Your task to perform on an android device: turn on airplane mode Image 0: 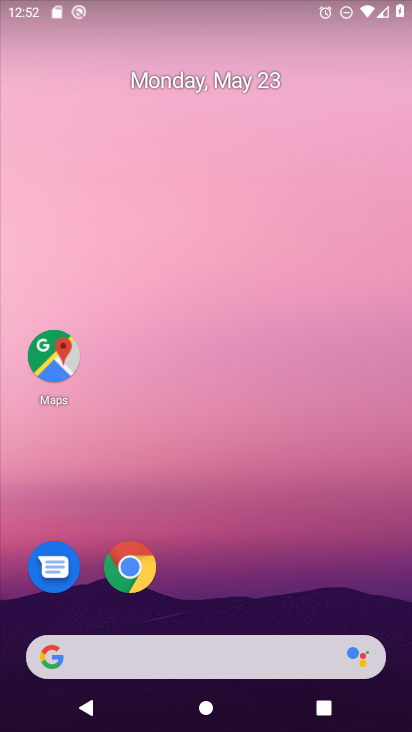
Step 0: drag from (203, 599) to (203, 189)
Your task to perform on an android device: turn on airplane mode Image 1: 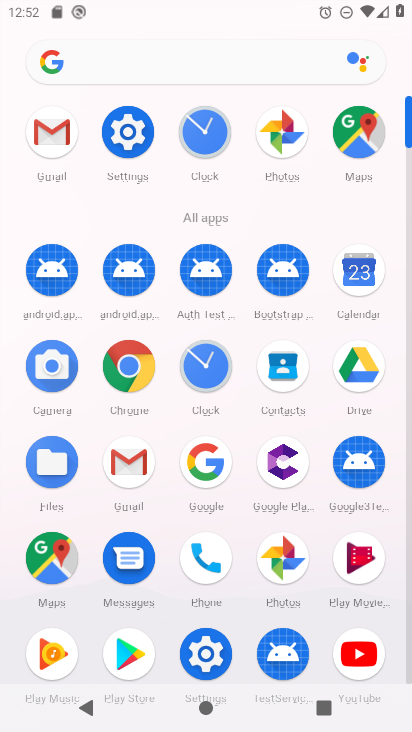
Step 1: click (139, 124)
Your task to perform on an android device: turn on airplane mode Image 2: 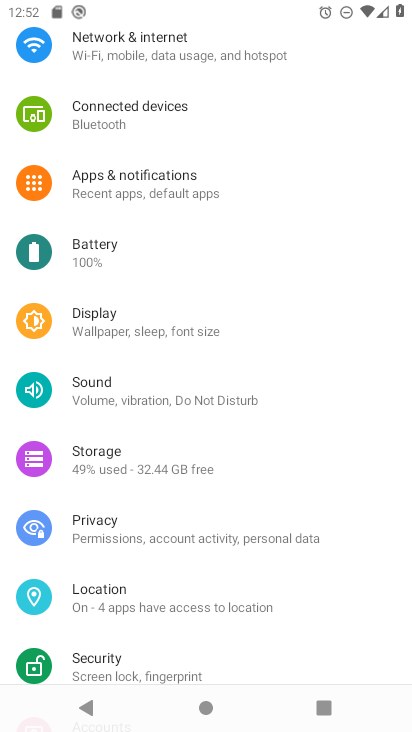
Step 2: click (182, 63)
Your task to perform on an android device: turn on airplane mode Image 3: 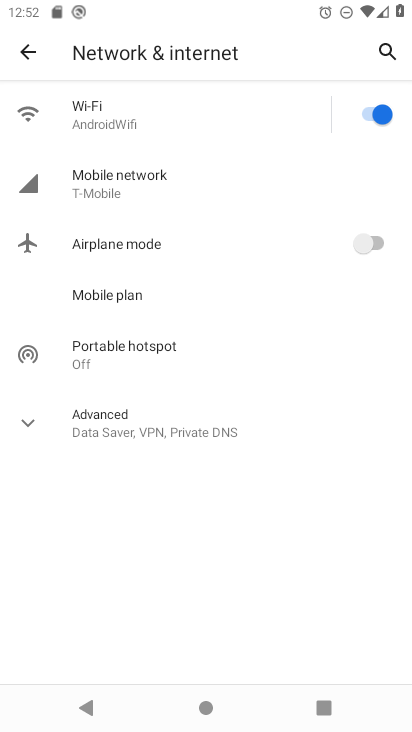
Step 3: click (380, 239)
Your task to perform on an android device: turn on airplane mode Image 4: 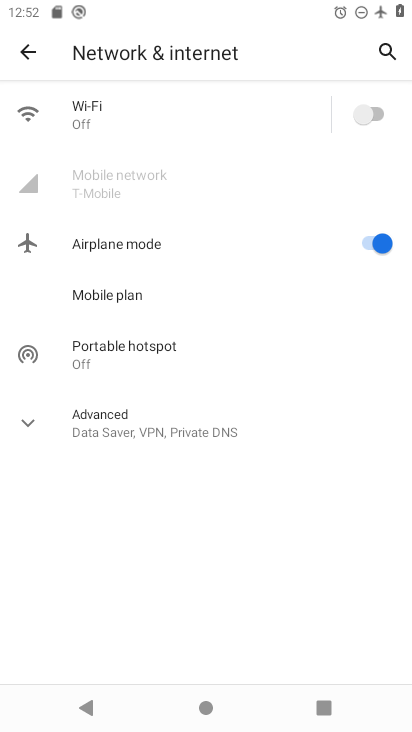
Step 4: task complete